Your task to perform on an android device: turn pop-ups off in chrome Image 0: 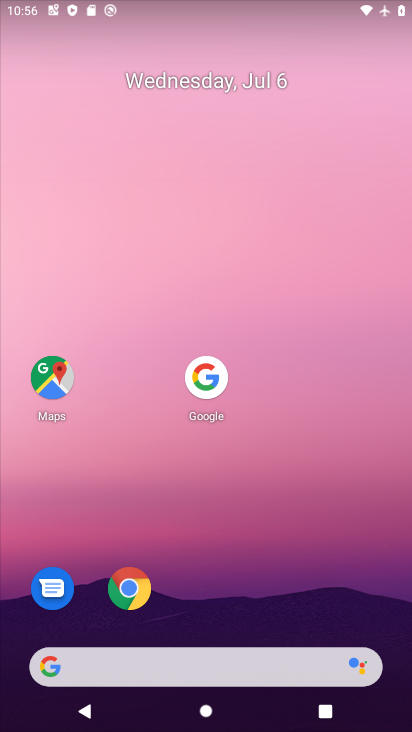
Step 0: click (128, 590)
Your task to perform on an android device: turn pop-ups off in chrome Image 1: 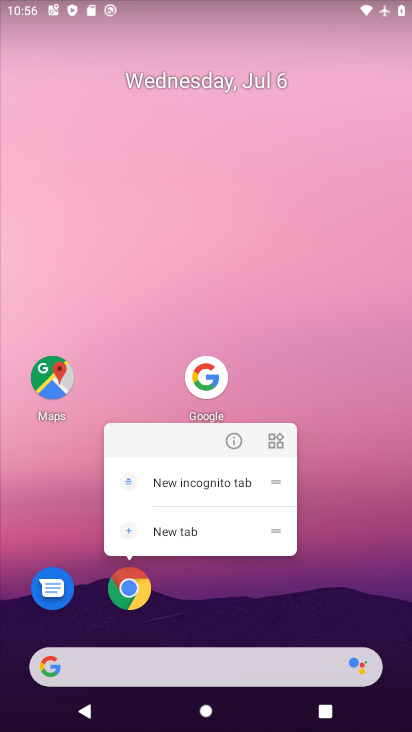
Step 1: click (128, 587)
Your task to perform on an android device: turn pop-ups off in chrome Image 2: 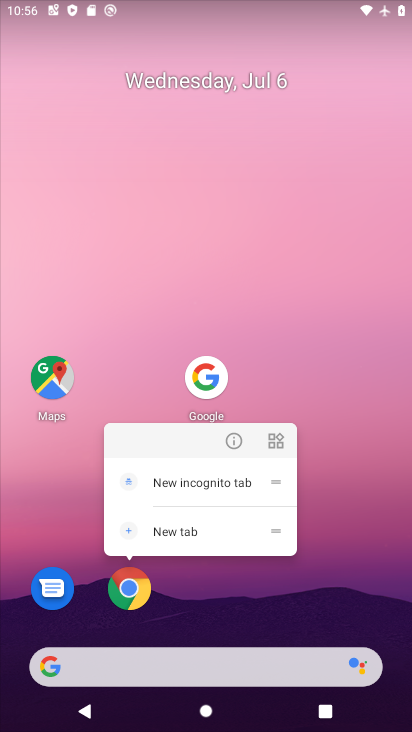
Step 2: click (128, 587)
Your task to perform on an android device: turn pop-ups off in chrome Image 3: 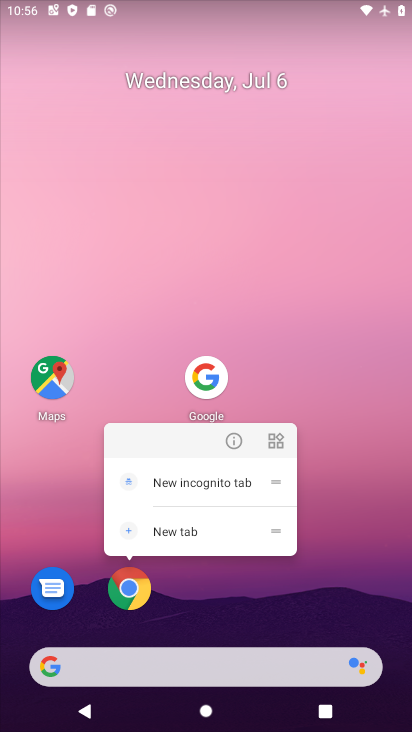
Step 3: click (128, 587)
Your task to perform on an android device: turn pop-ups off in chrome Image 4: 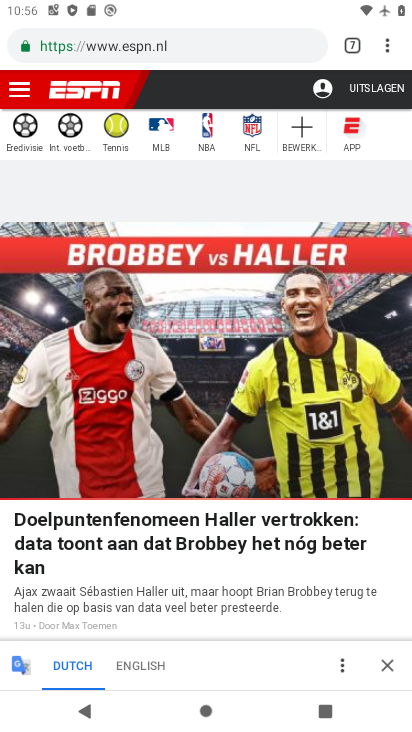
Step 4: click (385, 55)
Your task to perform on an android device: turn pop-ups off in chrome Image 5: 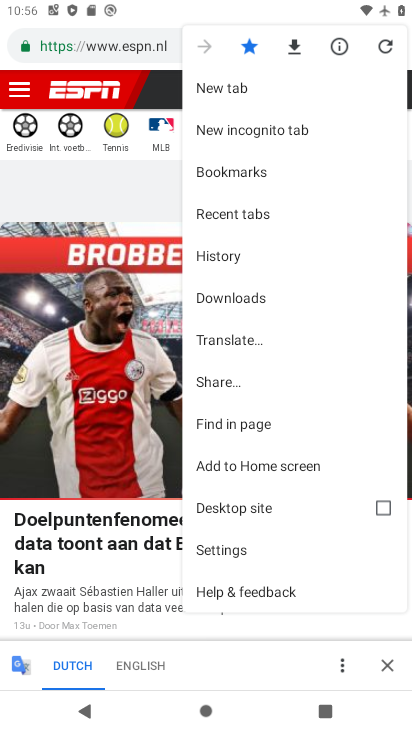
Step 5: click (207, 546)
Your task to perform on an android device: turn pop-ups off in chrome Image 6: 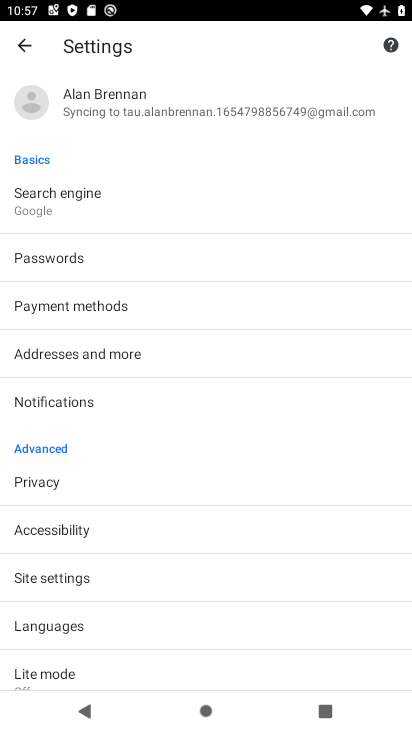
Step 6: click (69, 581)
Your task to perform on an android device: turn pop-ups off in chrome Image 7: 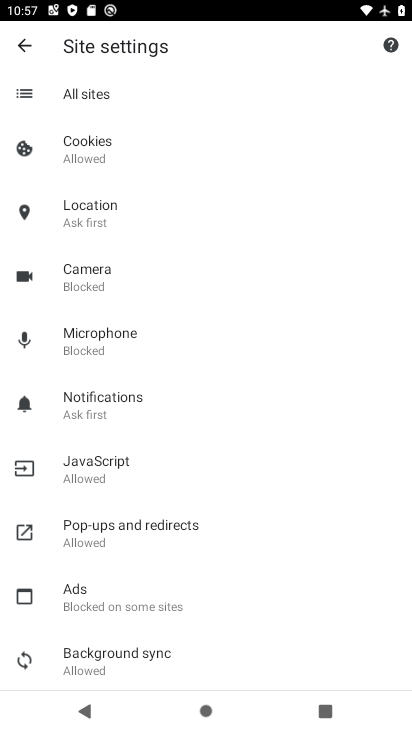
Step 7: click (146, 530)
Your task to perform on an android device: turn pop-ups off in chrome Image 8: 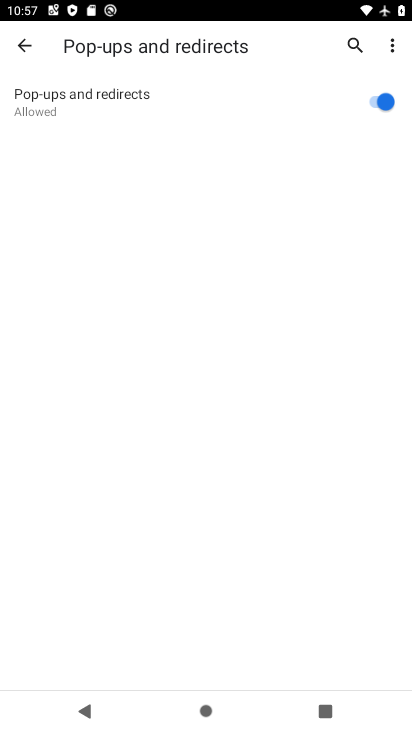
Step 8: click (378, 101)
Your task to perform on an android device: turn pop-ups off in chrome Image 9: 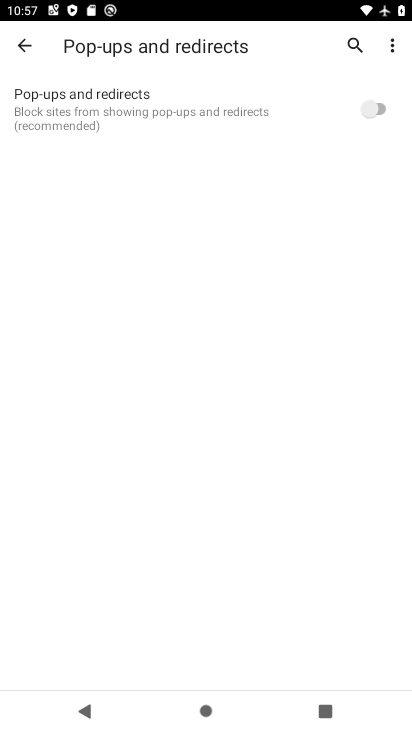
Step 9: task complete